Your task to perform on an android device: toggle show notifications on the lock screen Image 0: 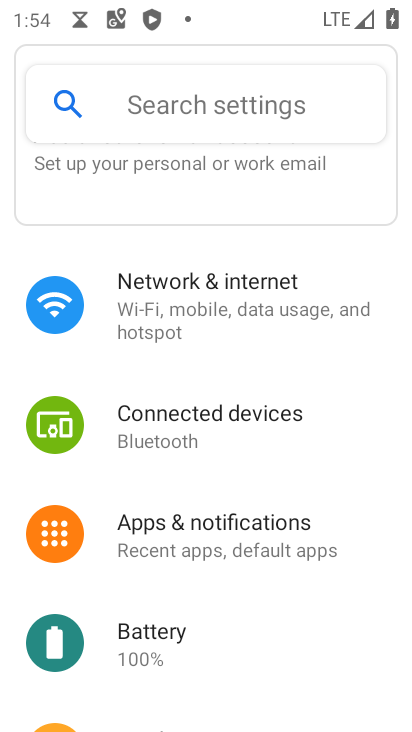
Step 0: click (216, 523)
Your task to perform on an android device: toggle show notifications on the lock screen Image 1: 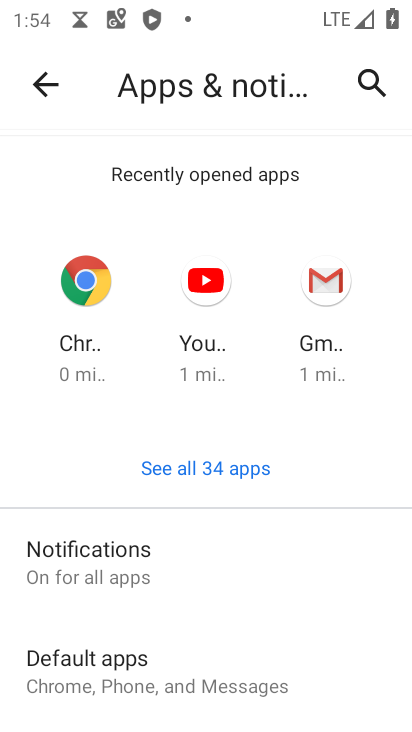
Step 1: click (209, 549)
Your task to perform on an android device: toggle show notifications on the lock screen Image 2: 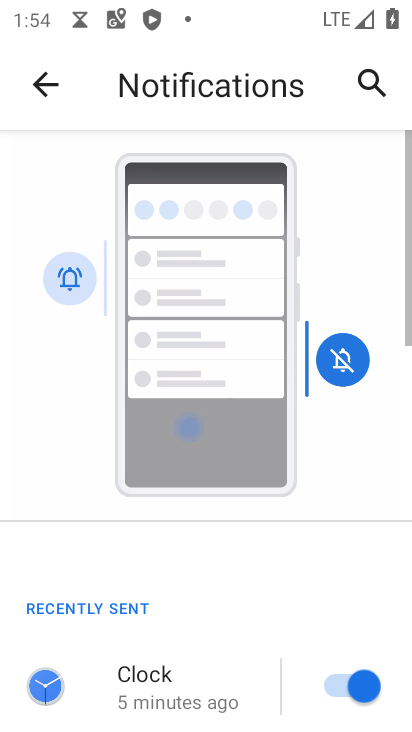
Step 2: drag from (246, 637) to (191, 140)
Your task to perform on an android device: toggle show notifications on the lock screen Image 3: 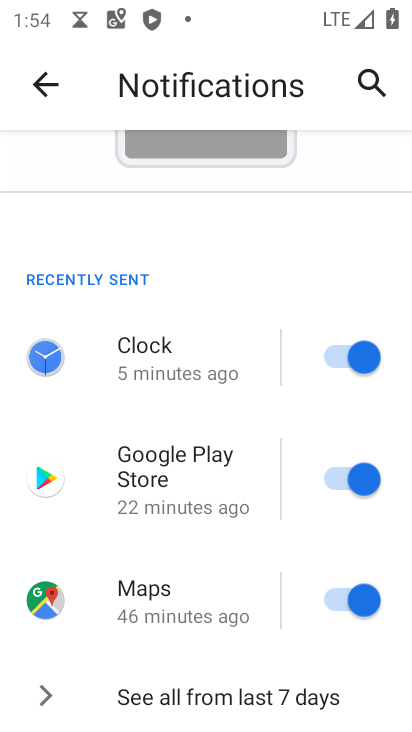
Step 3: drag from (251, 540) to (214, 233)
Your task to perform on an android device: toggle show notifications on the lock screen Image 4: 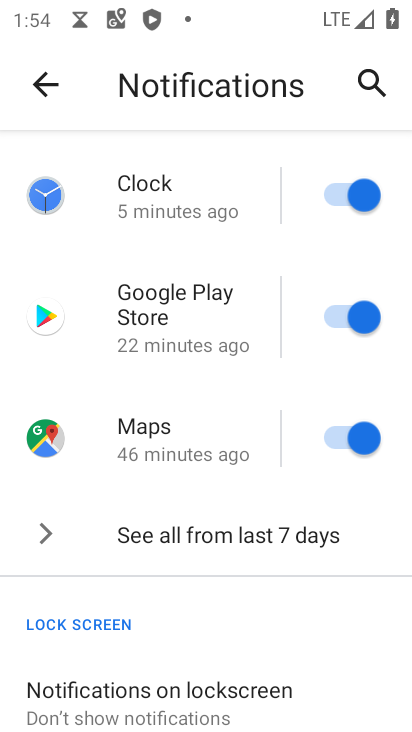
Step 4: click (199, 691)
Your task to perform on an android device: toggle show notifications on the lock screen Image 5: 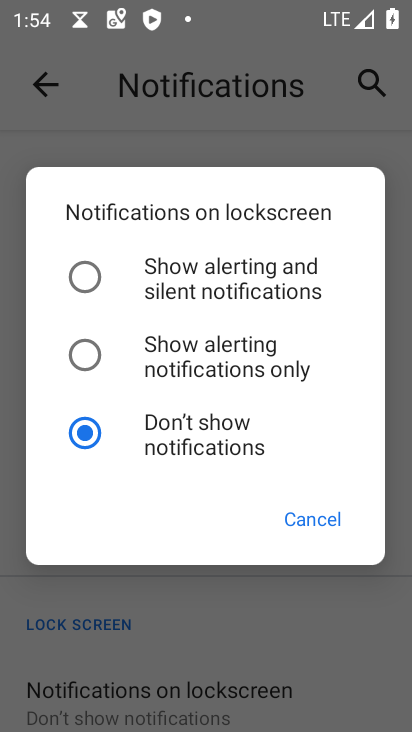
Step 5: click (182, 275)
Your task to perform on an android device: toggle show notifications on the lock screen Image 6: 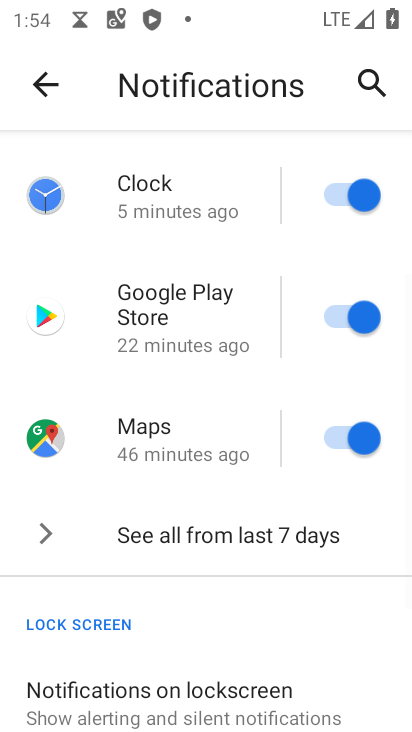
Step 6: task complete